Your task to perform on an android device: Go to privacy settings Image 0: 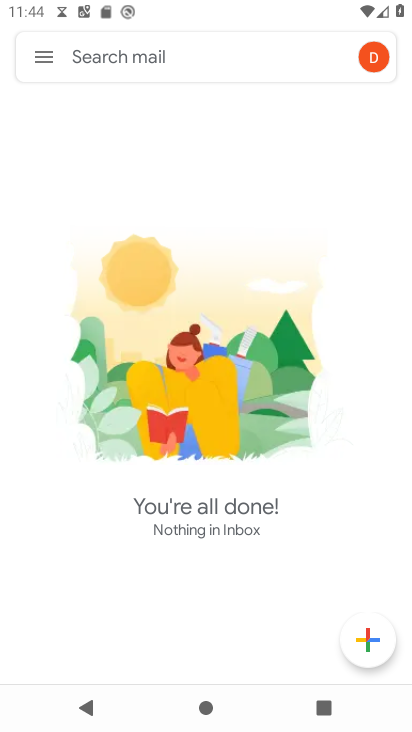
Step 0: press home button
Your task to perform on an android device: Go to privacy settings Image 1: 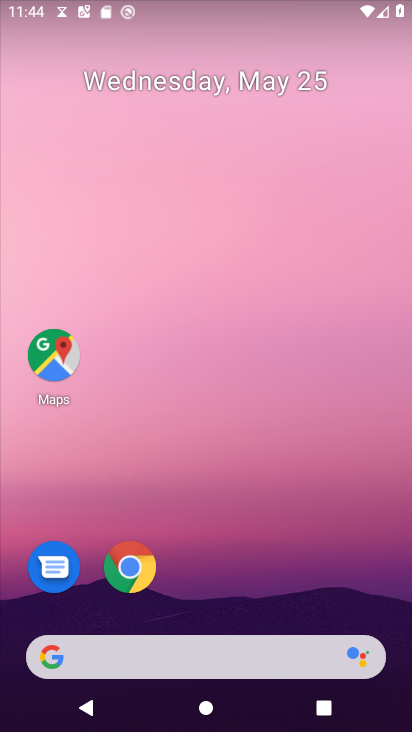
Step 1: drag from (224, 555) to (241, 416)
Your task to perform on an android device: Go to privacy settings Image 2: 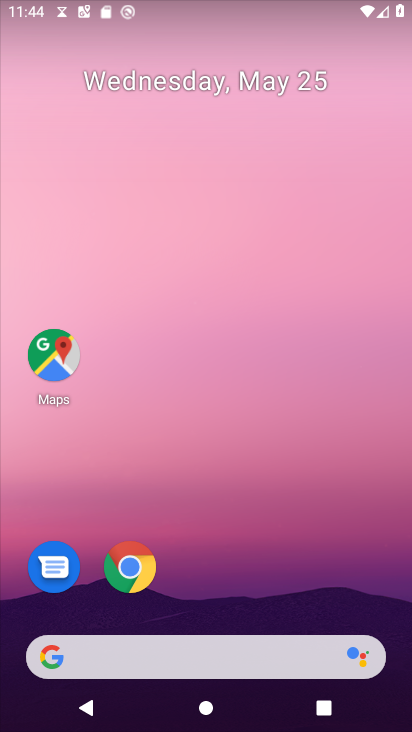
Step 2: drag from (249, 547) to (254, 45)
Your task to perform on an android device: Go to privacy settings Image 3: 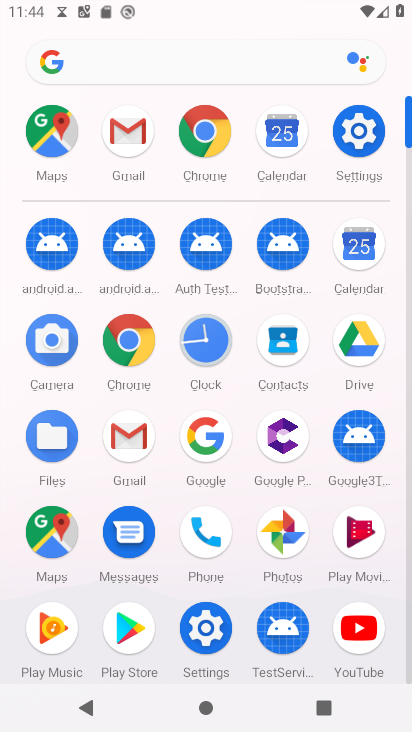
Step 3: click (358, 145)
Your task to perform on an android device: Go to privacy settings Image 4: 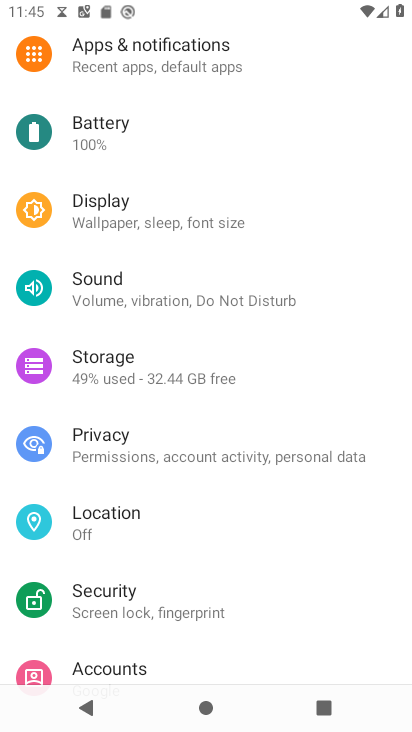
Step 4: click (169, 439)
Your task to perform on an android device: Go to privacy settings Image 5: 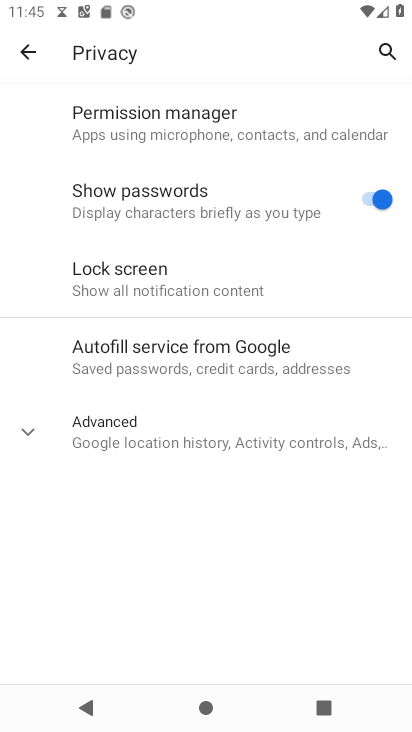
Step 5: task complete